Your task to perform on an android device: change the clock display to show seconds Image 0: 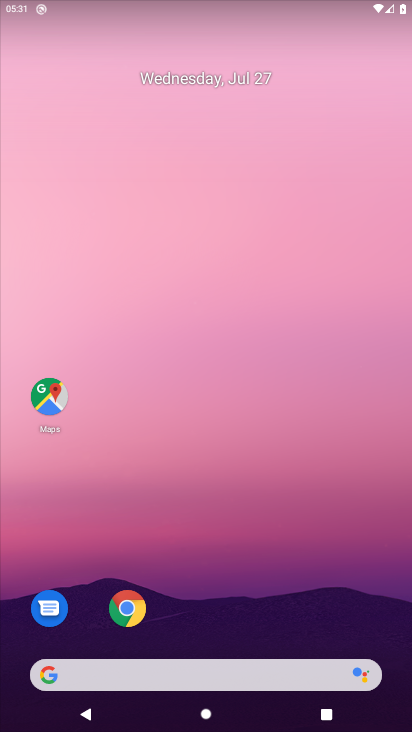
Step 0: press home button
Your task to perform on an android device: change the clock display to show seconds Image 1: 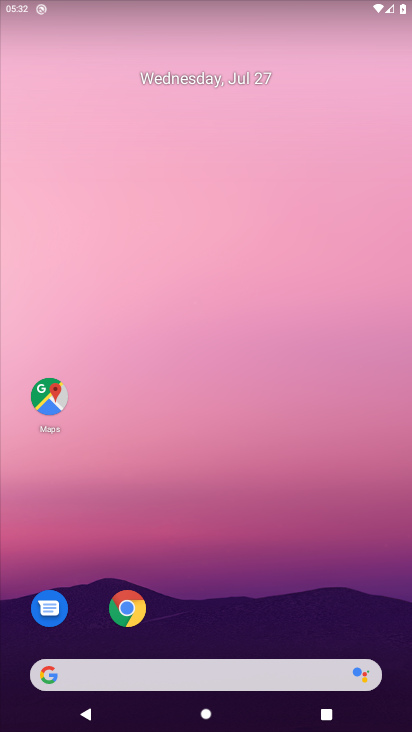
Step 1: drag from (238, 622) to (115, 19)
Your task to perform on an android device: change the clock display to show seconds Image 2: 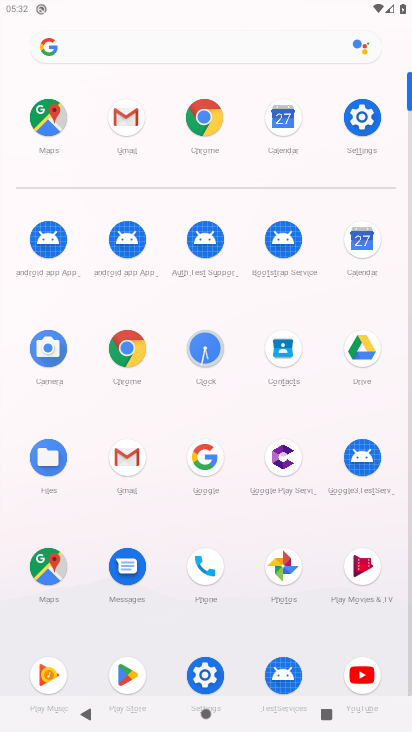
Step 2: click (201, 349)
Your task to perform on an android device: change the clock display to show seconds Image 3: 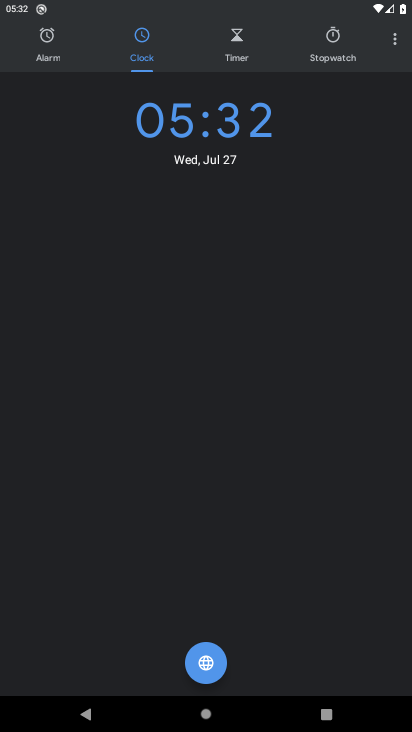
Step 3: click (388, 45)
Your task to perform on an android device: change the clock display to show seconds Image 4: 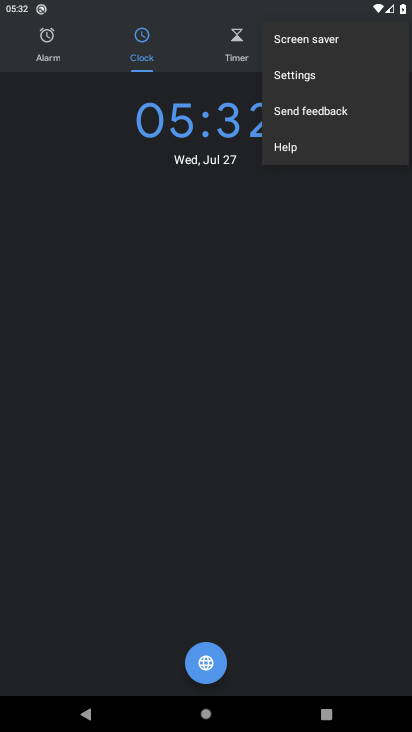
Step 4: click (298, 73)
Your task to perform on an android device: change the clock display to show seconds Image 5: 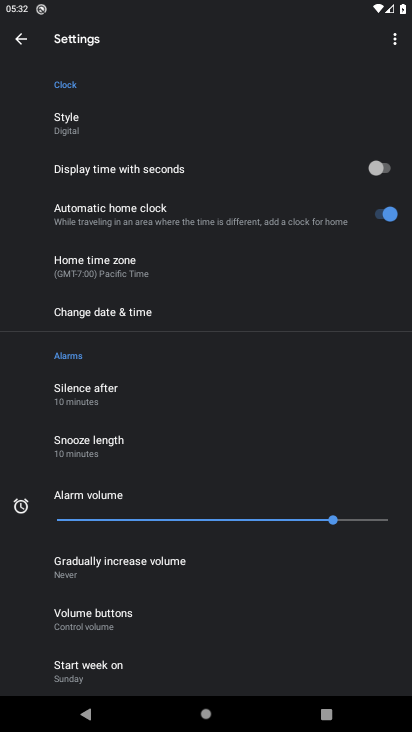
Step 5: click (372, 171)
Your task to perform on an android device: change the clock display to show seconds Image 6: 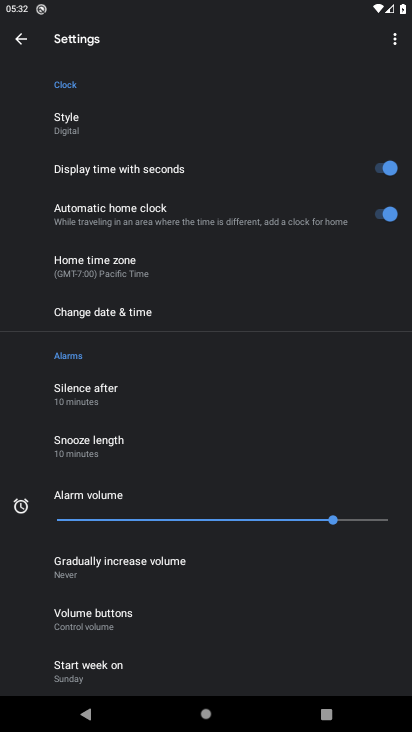
Step 6: task complete